Your task to perform on an android device: Open Google Maps and go to "Timeline" Image 0: 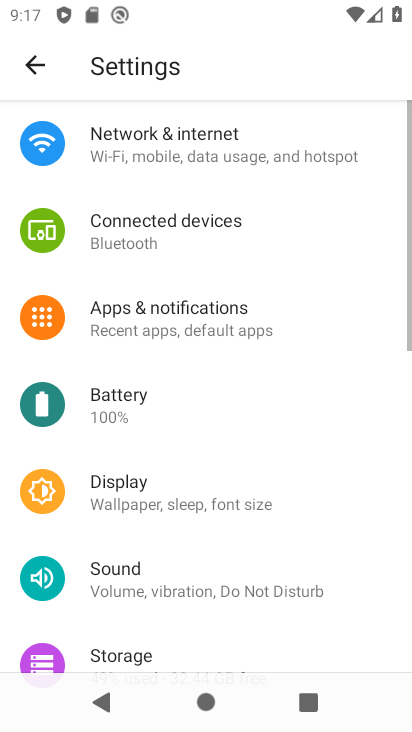
Step 0: press home button
Your task to perform on an android device: Open Google Maps and go to "Timeline" Image 1: 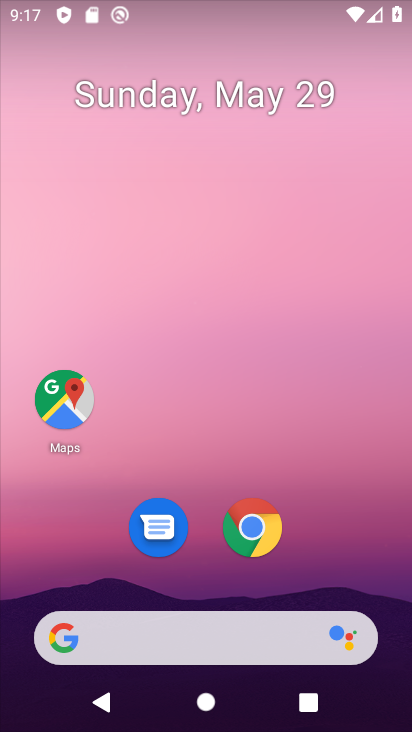
Step 1: click (65, 412)
Your task to perform on an android device: Open Google Maps and go to "Timeline" Image 2: 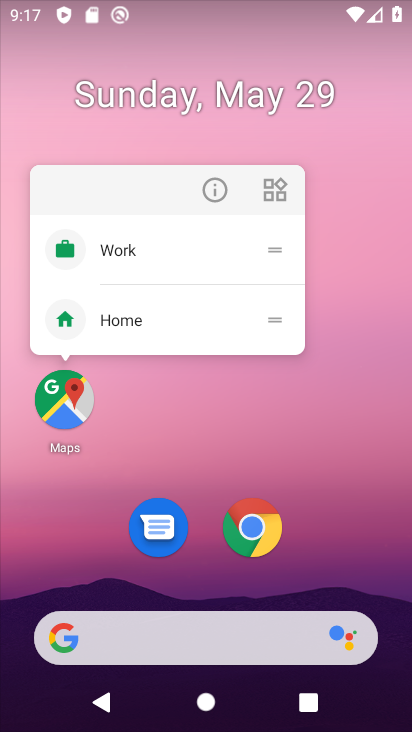
Step 2: click (65, 412)
Your task to perform on an android device: Open Google Maps and go to "Timeline" Image 3: 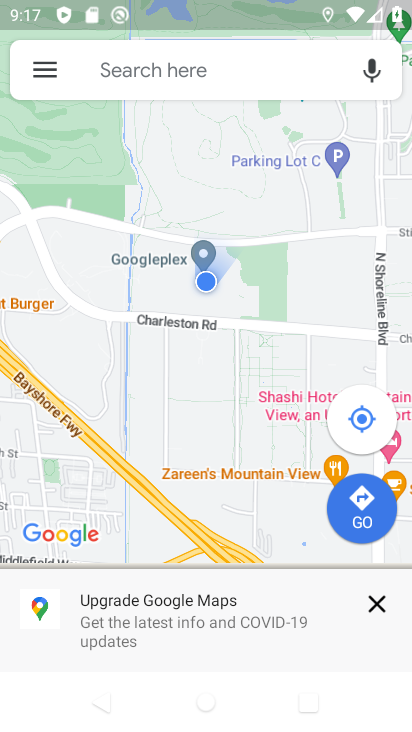
Step 3: click (46, 71)
Your task to perform on an android device: Open Google Maps and go to "Timeline" Image 4: 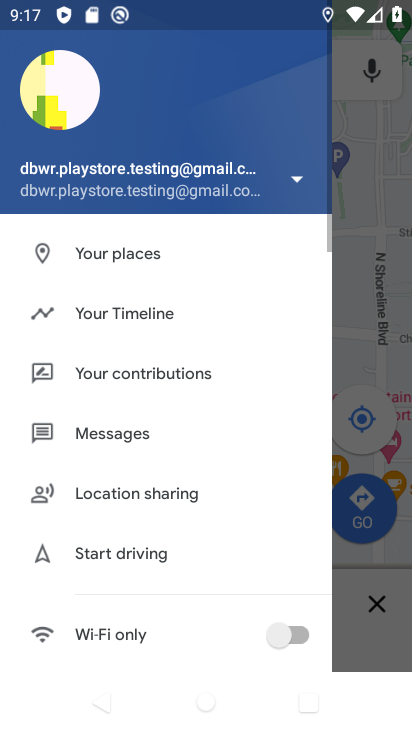
Step 4: click (156, 308)
Your task to perform on an android device: Open Google Maps and go to "Timeline" Image 5: 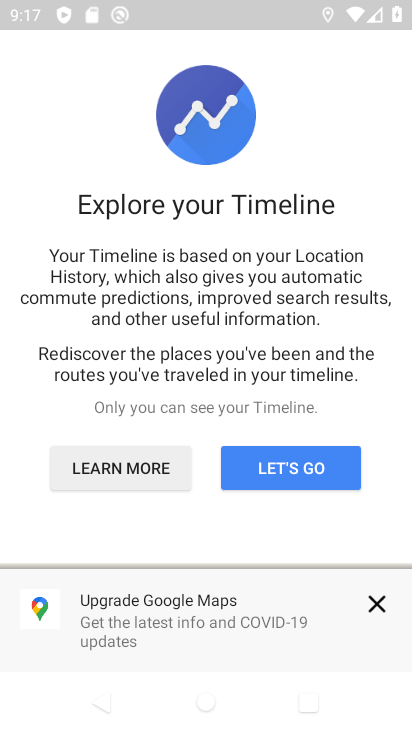
Step 5: click (302, 474)
Your task to perform on an android device: Open Google Maps and go to "Timeline" Image 6: 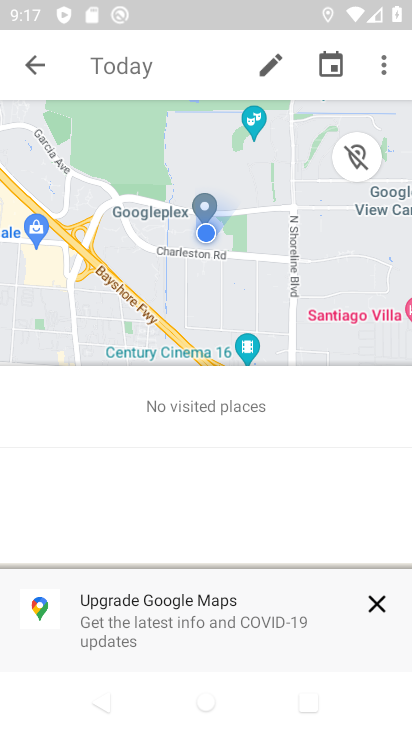
Step 6: click (373, 605)
Your task to perform on an android device: Open Google Maps and go to "Timeline" Image 7: 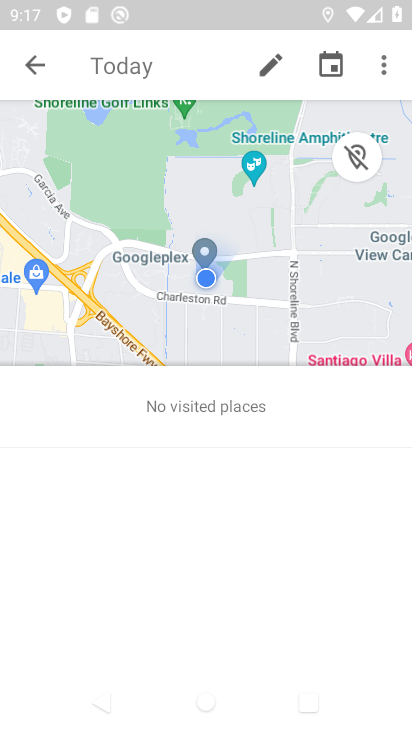
Step 7: task complete